Your task to perform on an android device: turn on notifications settings in the gmail app Image 0: 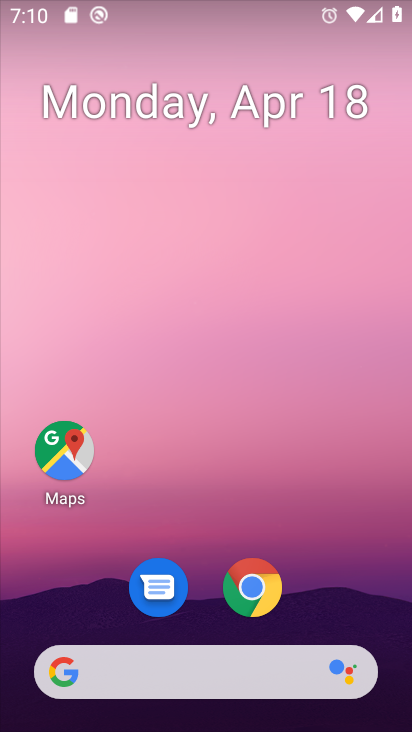
Step 0: drag from (301, 606) to (343, 39)
Your task to perform on an android device: turn on notifications settings in the gmail app Image 1: 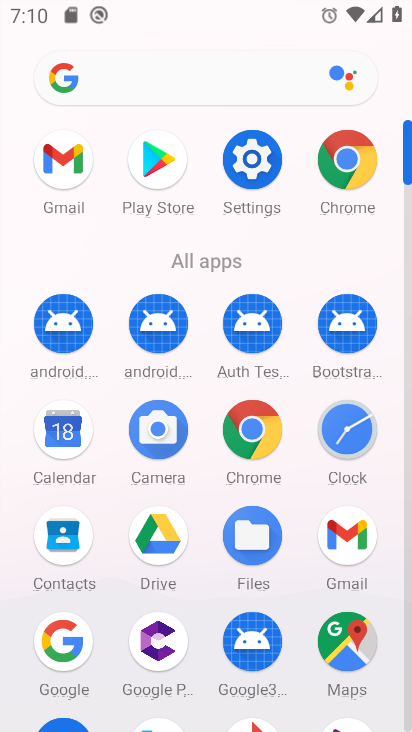
Step 1: click (266, 148)
Your task to perform on an android device: turn on notifications settings in the gmail app Image 2: 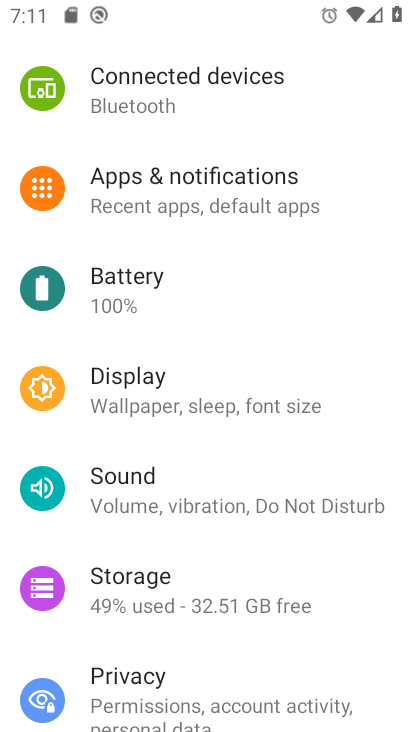
Step 2: press back button
Your task to perform on an android device: turn on notifications settings in the gmail app Image 3: 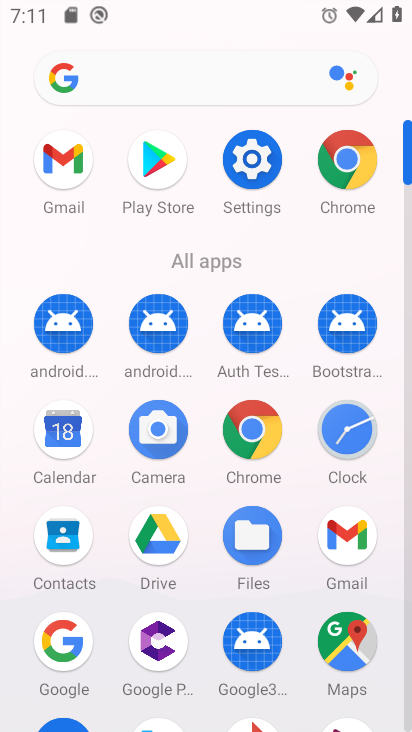
Step 3: click (353, 541)
Your task to perform on an android device: turn on notifications settings in the gmail app Image 4: 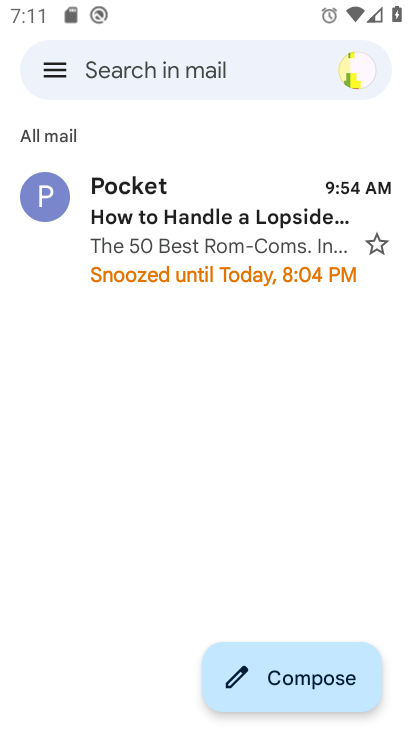
Step 4: click (60, 64)
Your task to perform on an android device: turn on notifications settings in the gmail app Image 5: 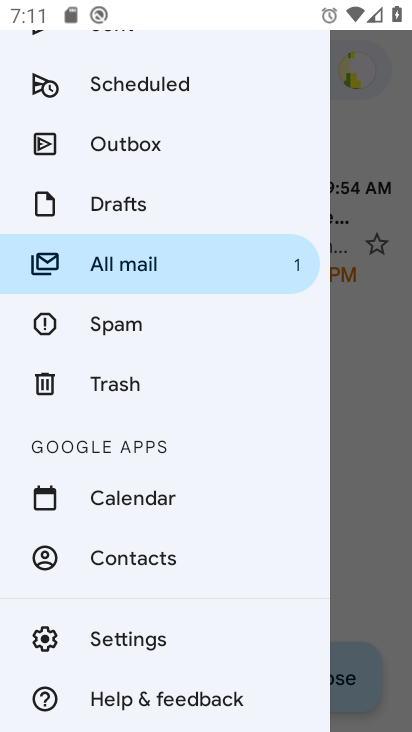
Step 5: click (143, 640)
Your task to perform on an android device: turn on notifications settings in the gmail app Image 6: 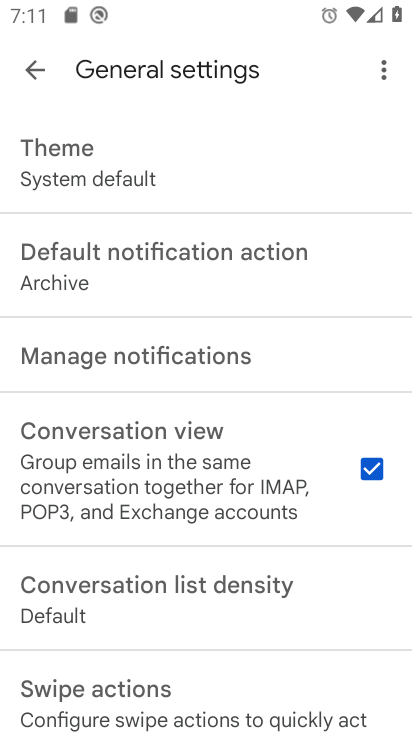
Step 6: click (268, 369)
Your task to perform on an android device: turn on notifications settings in the gmail app Image 7: 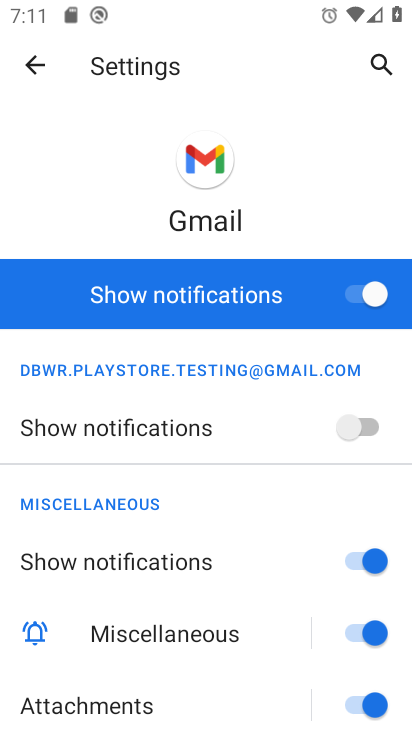
Step 7: task complete